Your task to perform on an android device: Search for sushi restaurants on Maps Image 0: 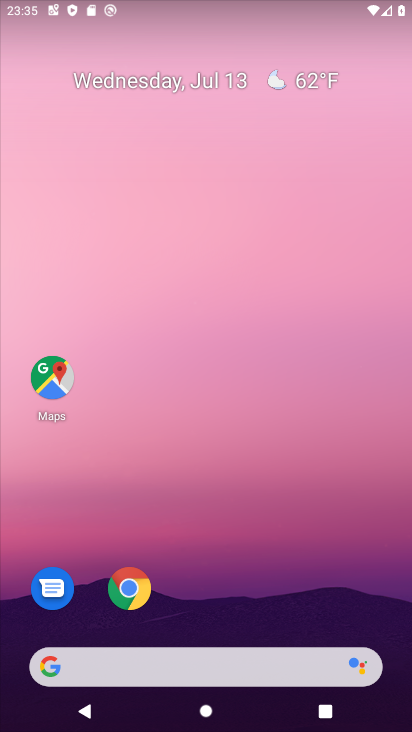
Step 0: click (69, 397)
Your task to perform on an android device: Search for sushi restaurants on Maps Image 1: 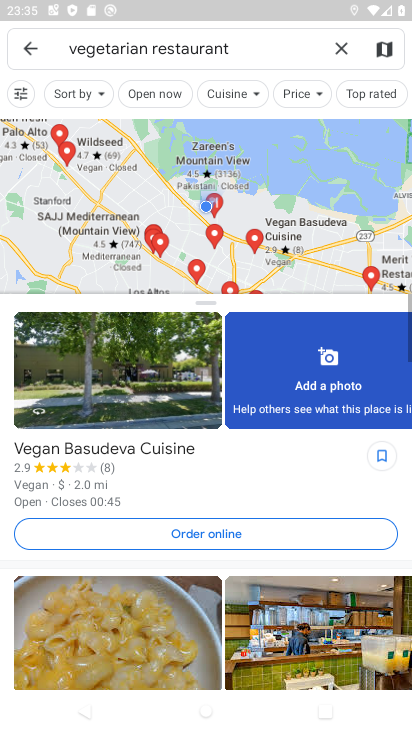
Step 1: click (346, 53)
Your task to perform on an android device: Search for sushi restaurants on Maps Image 2: 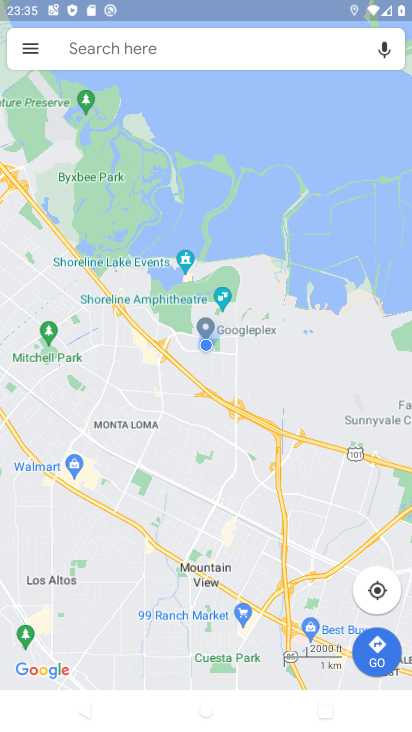
Step 2: click (217, 47)
Your task to perform on an android device: Search for sushi restaurants on Maps Image 3: 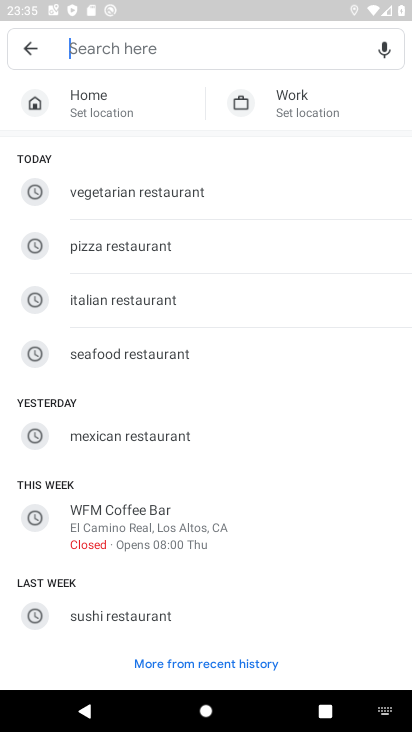
Step 3: click (107, 621)
Your task to perform on an android device: Search for sushi restaurants on Maps Image 4: 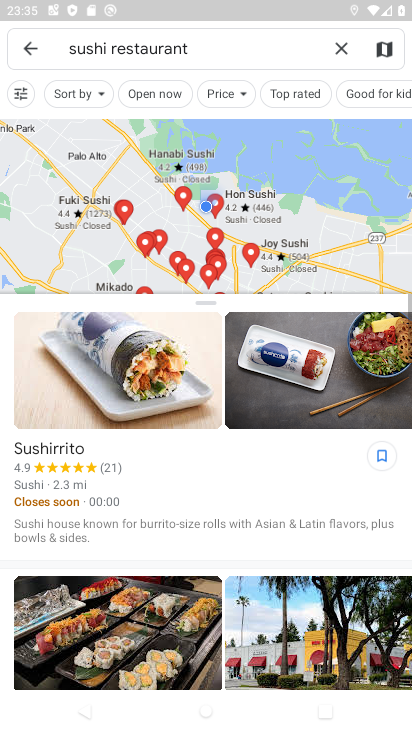
Step 4: task complete